Your task to perform on an android device: turn pop-ups on in chrome Image 0: 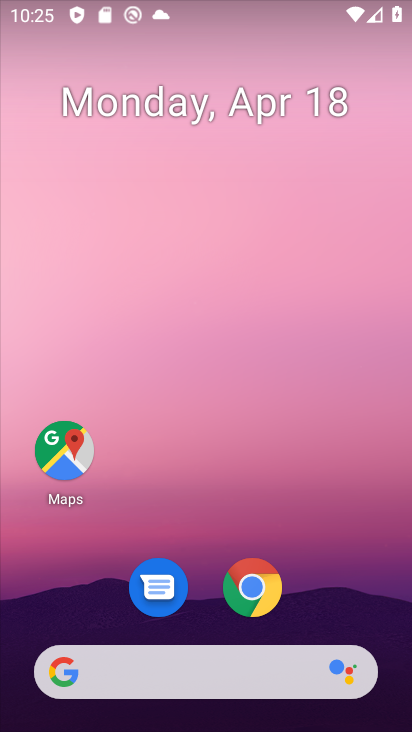
Step 0: drag from (344, 577) to (400, 75)
Your task to perform on an android device: turn pop-ups on in chrome Image 1: 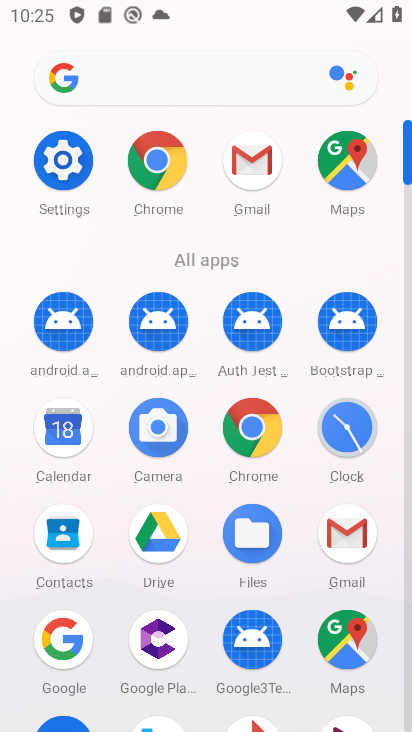
Step 1: click (159, 158)
Your task to perform on an android device: turn pop-ups on in chrome Image 2: 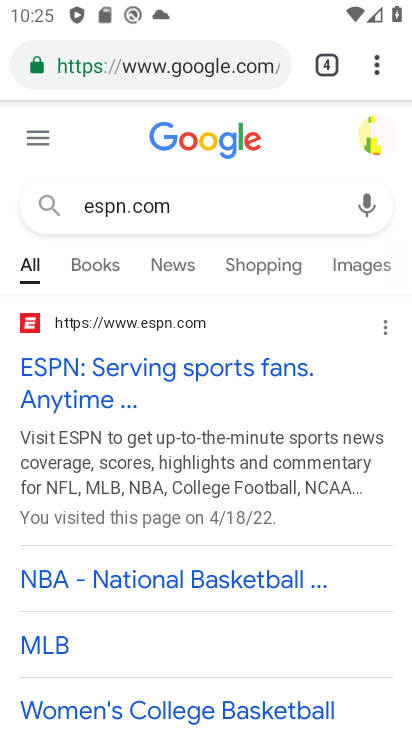
Step 2: click (379, 58)
Your task to perform on an android device: turn pop-ups on in chrome Image 3: 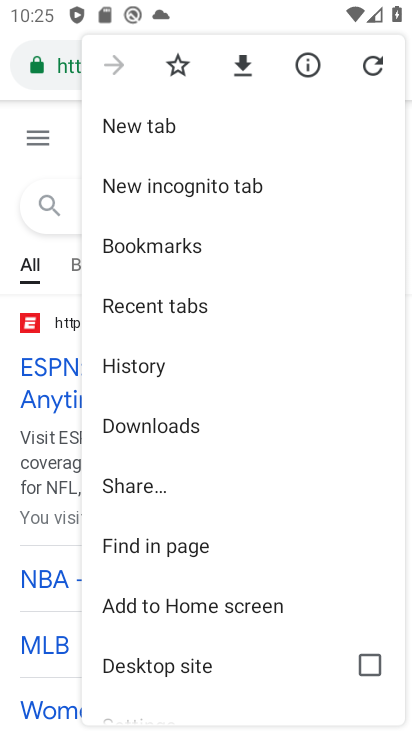
Step 3: drag from (238, 652) to (304, 159)
Your task to perform on an android device: turn pop-ups on in chrome Image 4: 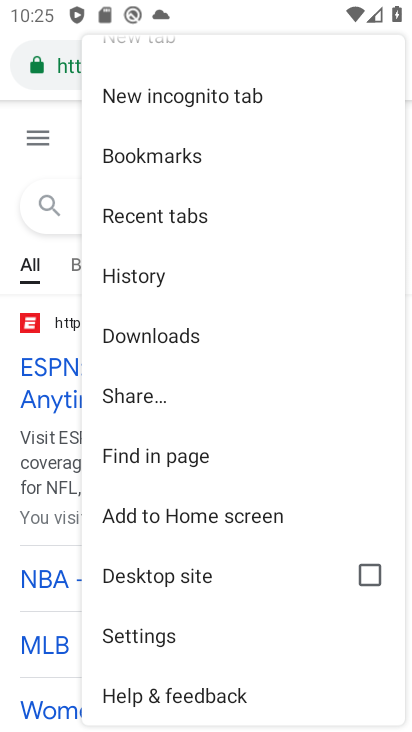
Step 4: click (133, 640)
Your task to perform on an android device: turn pop-ups on in chrome Image 5: 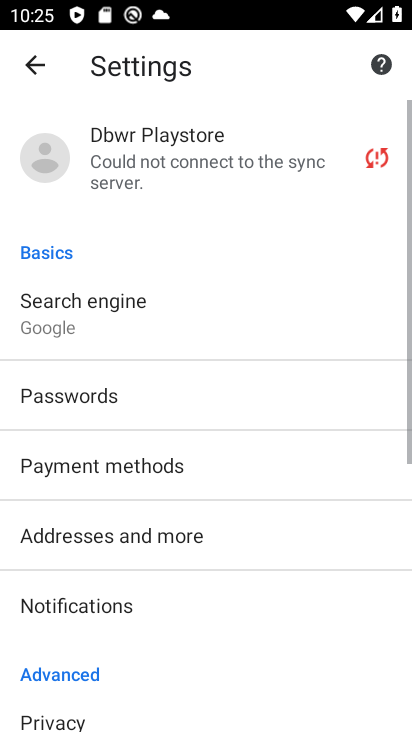
Step 5: drag from (336, 667) to (372, 251)
Your task to perform on an android device: turn pop-ups on in chrome Image 6: 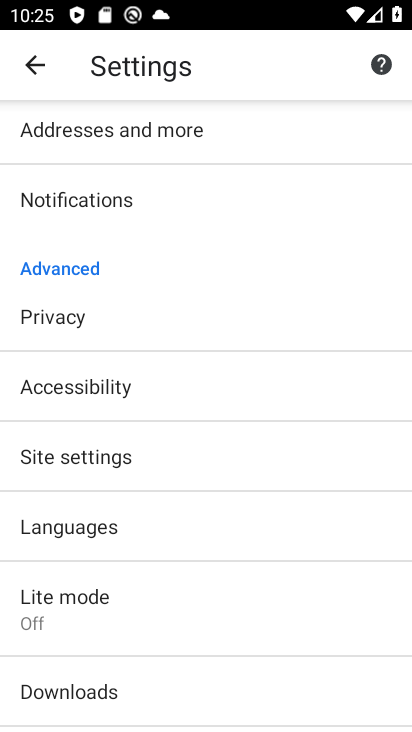
Step 6: click (42, 457)
Your task to perform on an android device: turn pop-ups on in chrome Image 7: 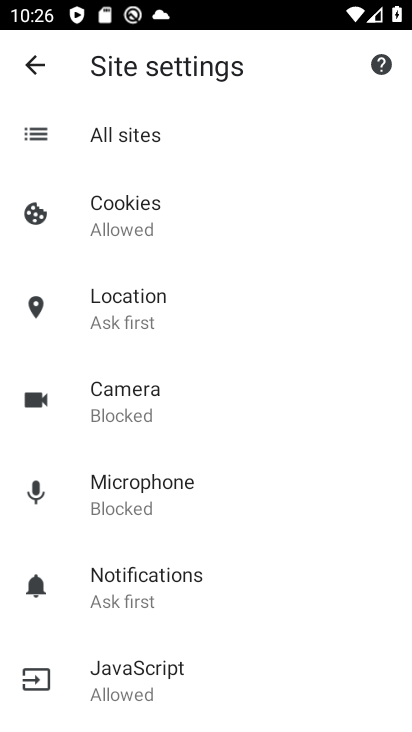
Step 7: drag from (254, 590) to (363, 163)
Your task to perform on an android device: turn pop-ups on in chrome Image 8: 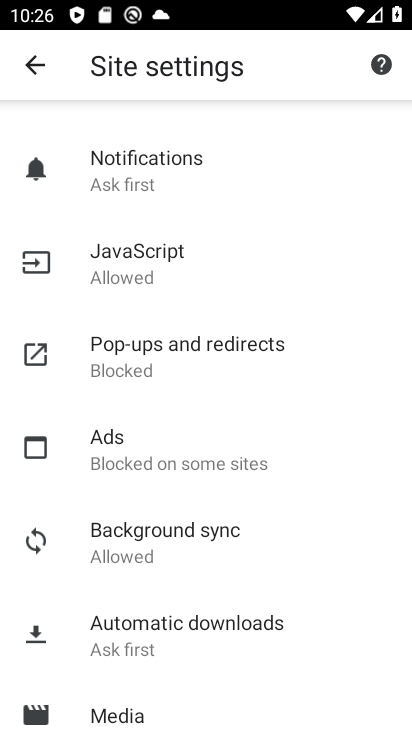
Step 8: click (158, 369)
Your task to perform on an android device: turn pop-ups on in chrome Image 9: 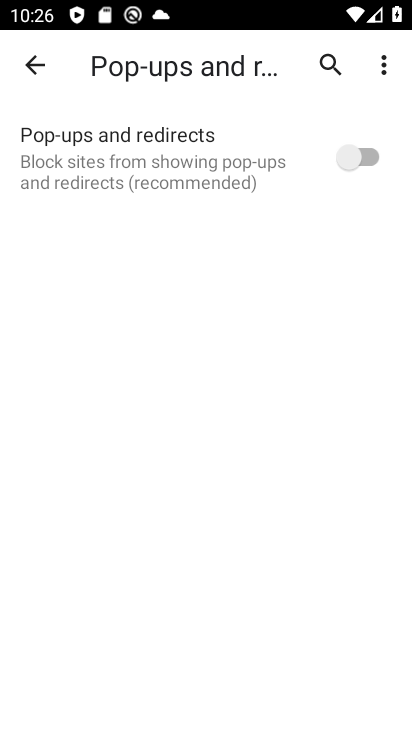
Step 9: click (370, 164)
Your task to perform on an android device: turn pop-ups on in chrome Image 10: 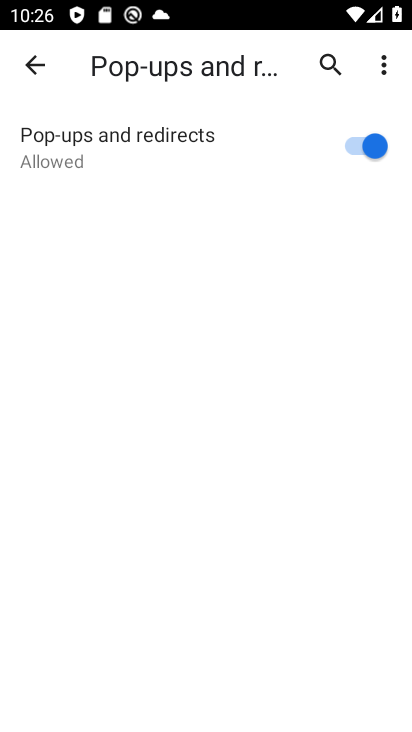
Step 10: task complete